Your task to perform on an android device: Go to Android settings Image 0: 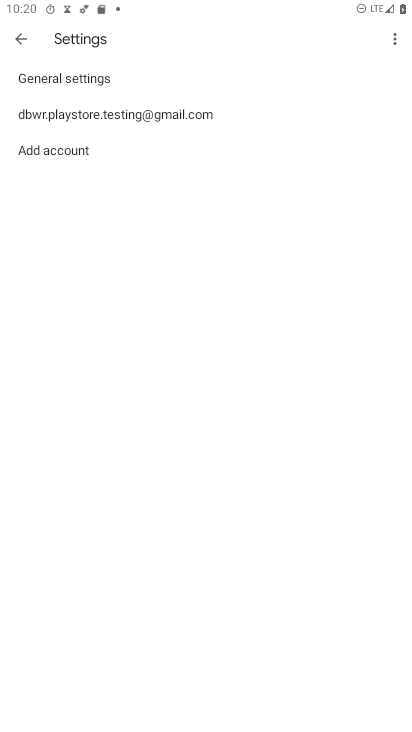
Step 0: press home button
Your task to perform on an android device: Go to Android settings Image 1: 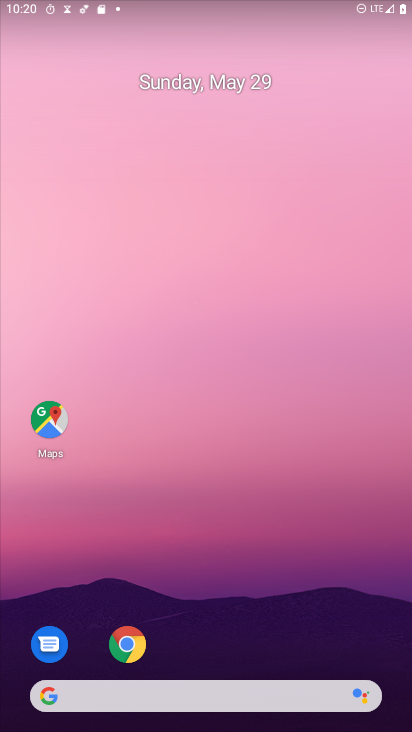
Step 1: drag from (127, 727) to (140, 57)
Your task to perform on an android device: Go to Android settings Image 2: 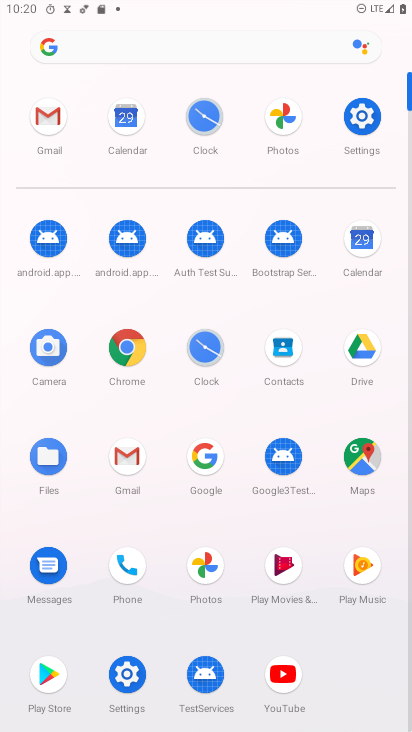
Step 2: click (122, 681)
Your task to perform on an android device: Go to Android settings Image 3: 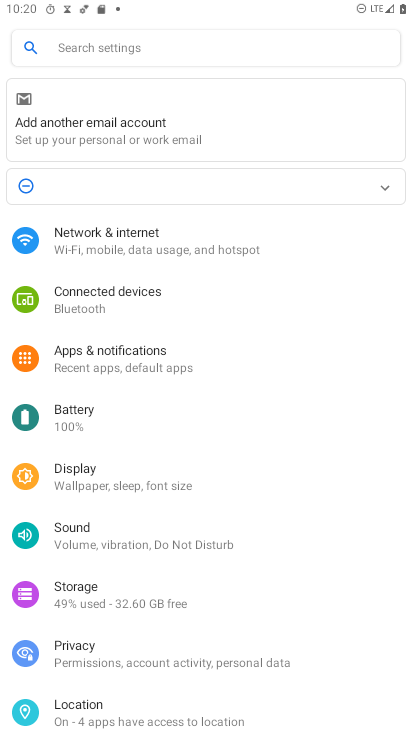
Step 3: task complete